Your task to perform on an android device: turn off wifi Image 0: 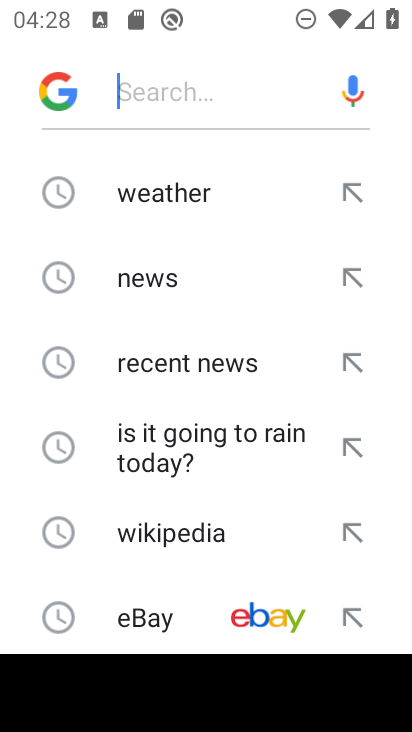
Step 0: press home button
Your task to perform on an android device: turn off wifi Image 1: 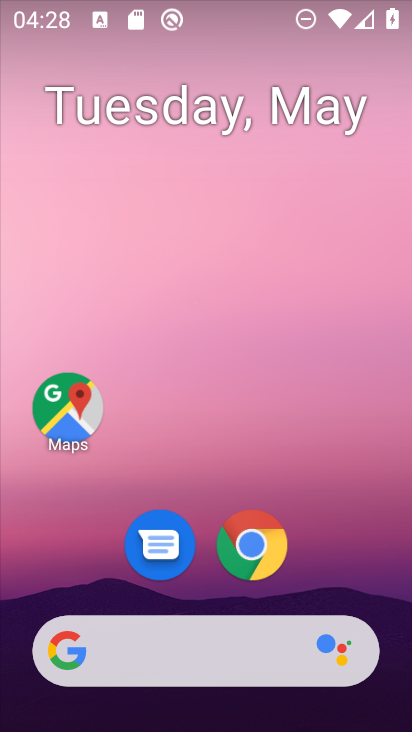
Step 1: drag from (387, 608) to (347, 97)
Your task to perform on an android device: turn off wifi Image 2: 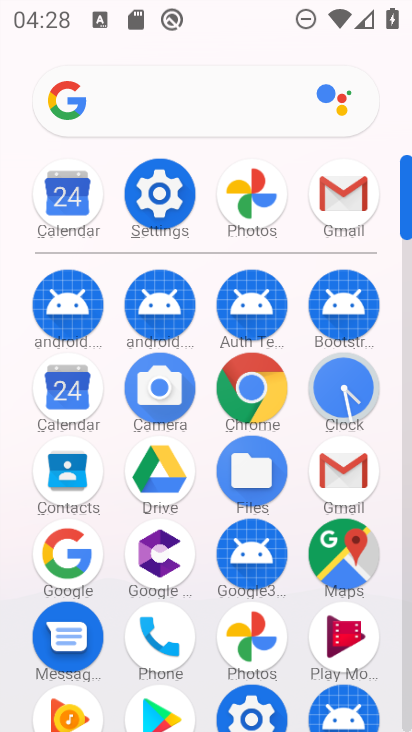
Step 2: click (406, 710)
Your task to perform on an android device: turn off wifi Image 3: 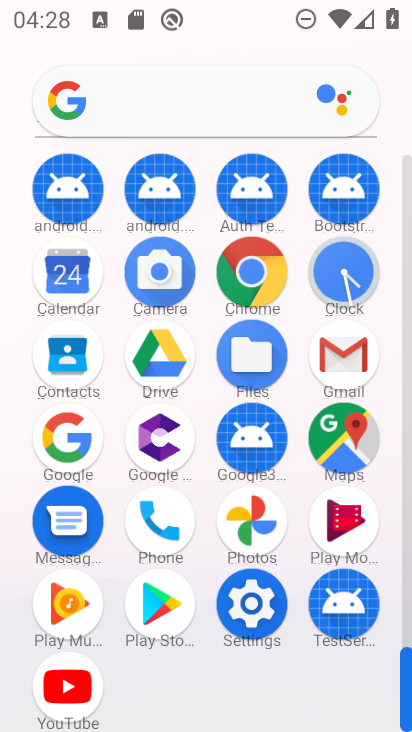
Step 3: click (252, 599)
Your task to perform on an android device: turn off wifi Image 4: 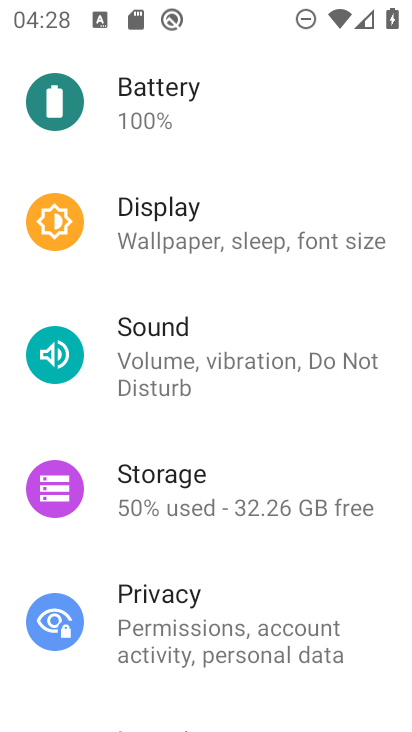
Step 4: drag from (293, 182) to (291, 563)
Your task to perform on an android device: turn off wifi Image 5: 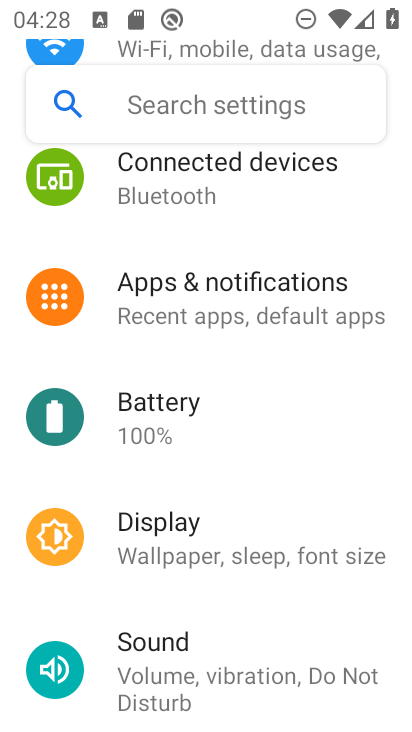
Step 5: drag from (289, 206) to (275, 473)
Your task to perform on an android device: turn off wifi Image 6: 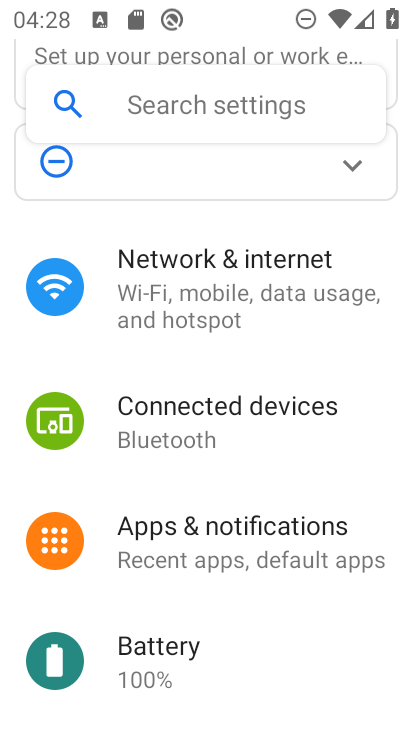
Step 6: click (164, 286)
Your task to perform on an android device: turn off wifi Image 7: 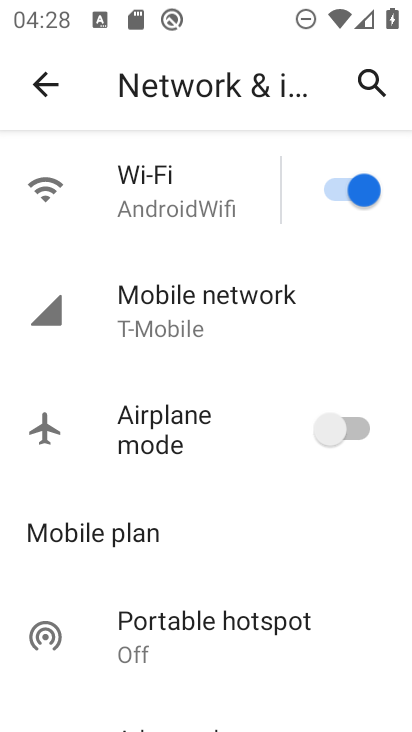
Step 7: click (332, 190)
Your task to perform on an android device: turn off wifi Image 8: 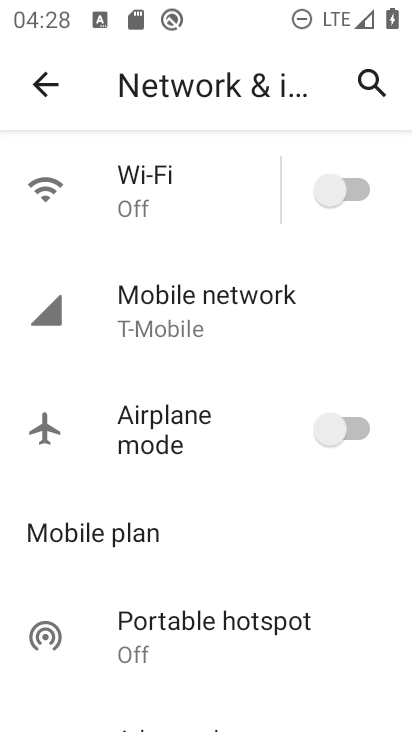
Step 8: task complete